Your task to perform on an android device: How much does a 3 bedroom apartment rent for in Boston? Image 0: 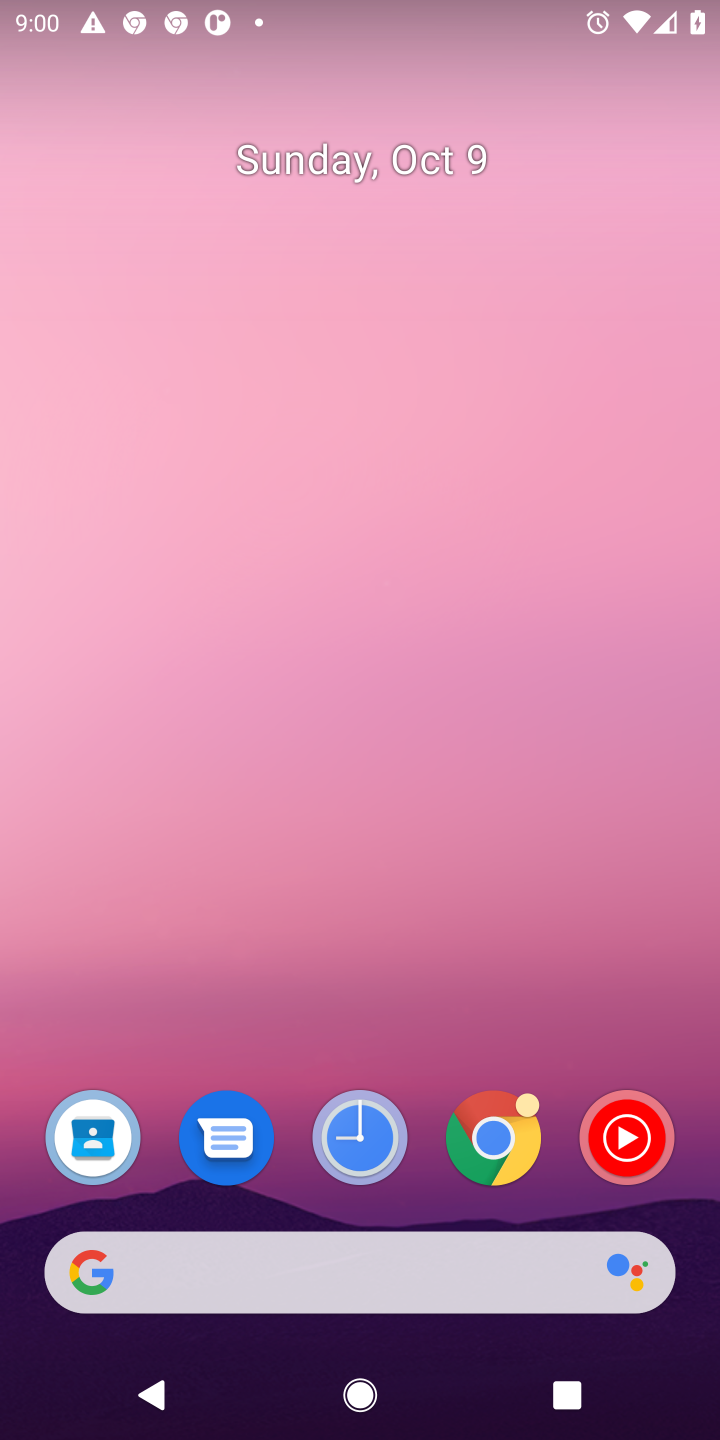
Step 0: drag from (346, 1126) to (435, 382)
Your task to perform on an android device: How much does a 3 bedroom apartment rent for in Boston? Image 1: 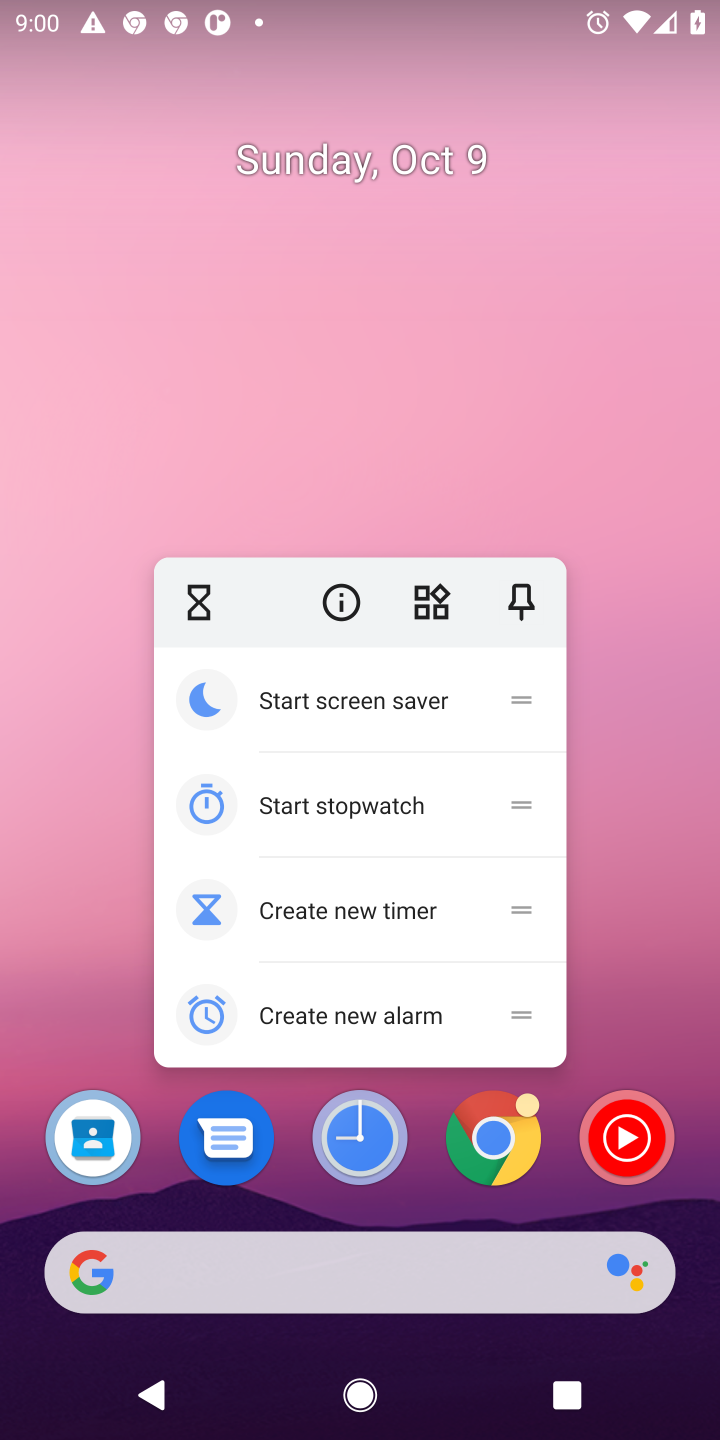
Step 1: click (69, 904)
Your task to perform on an android device: How much does a 3 bedroom apartment rent for in Boston? Image 2: 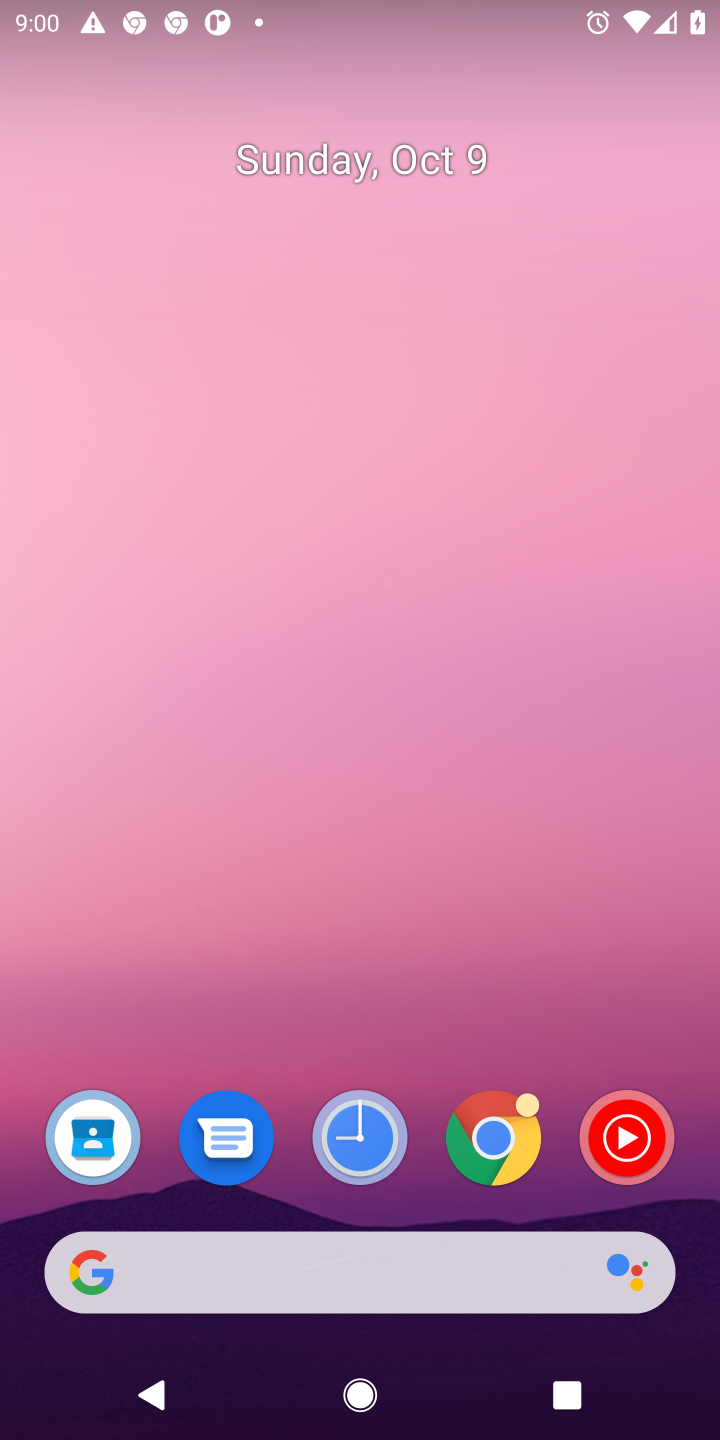
Step 2: drag from (205, 1211) to (240, 417)
Your task to perform on an android device: How much does a 3 bedroom apartment rent for in Boston? Image 3: 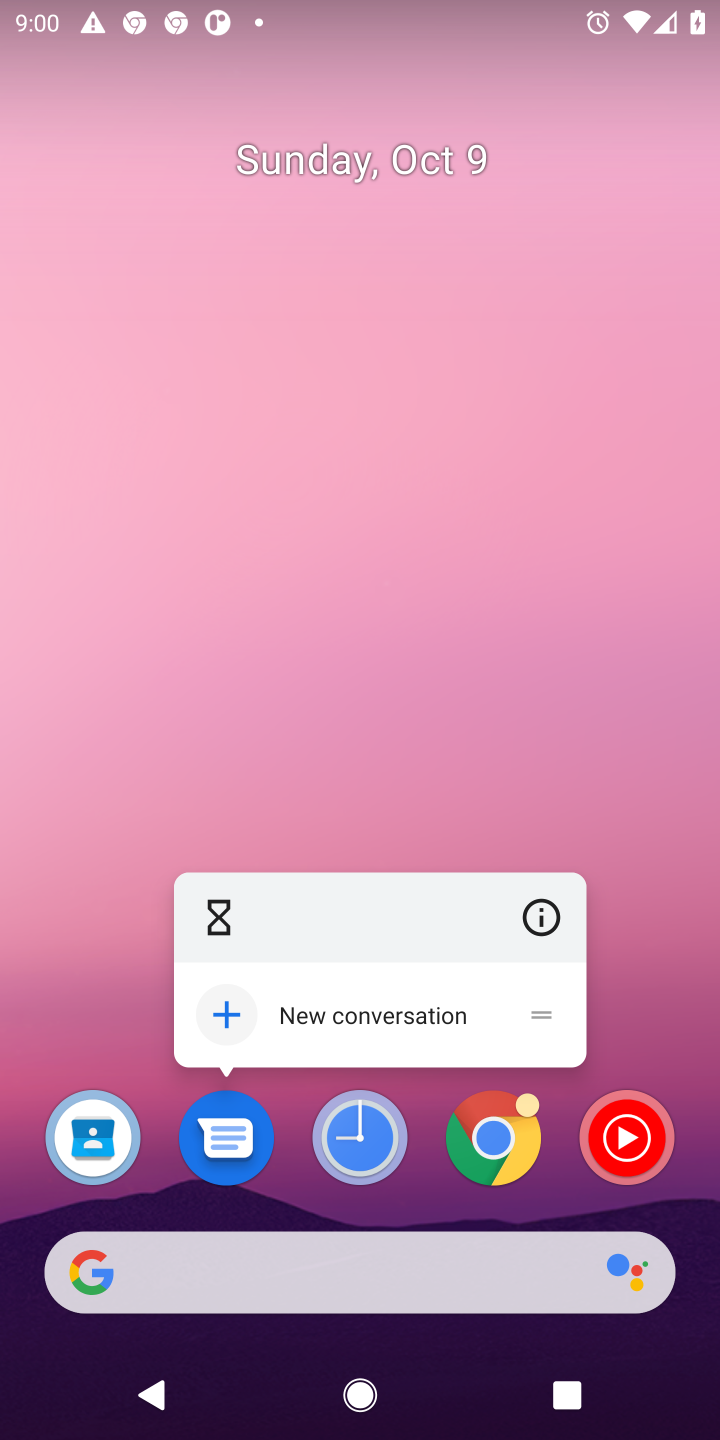
Step 3: click (518, 579)
Your task to perform on an android device: How much does a 3 bedroom apartment rent for in Boston? Image 4: 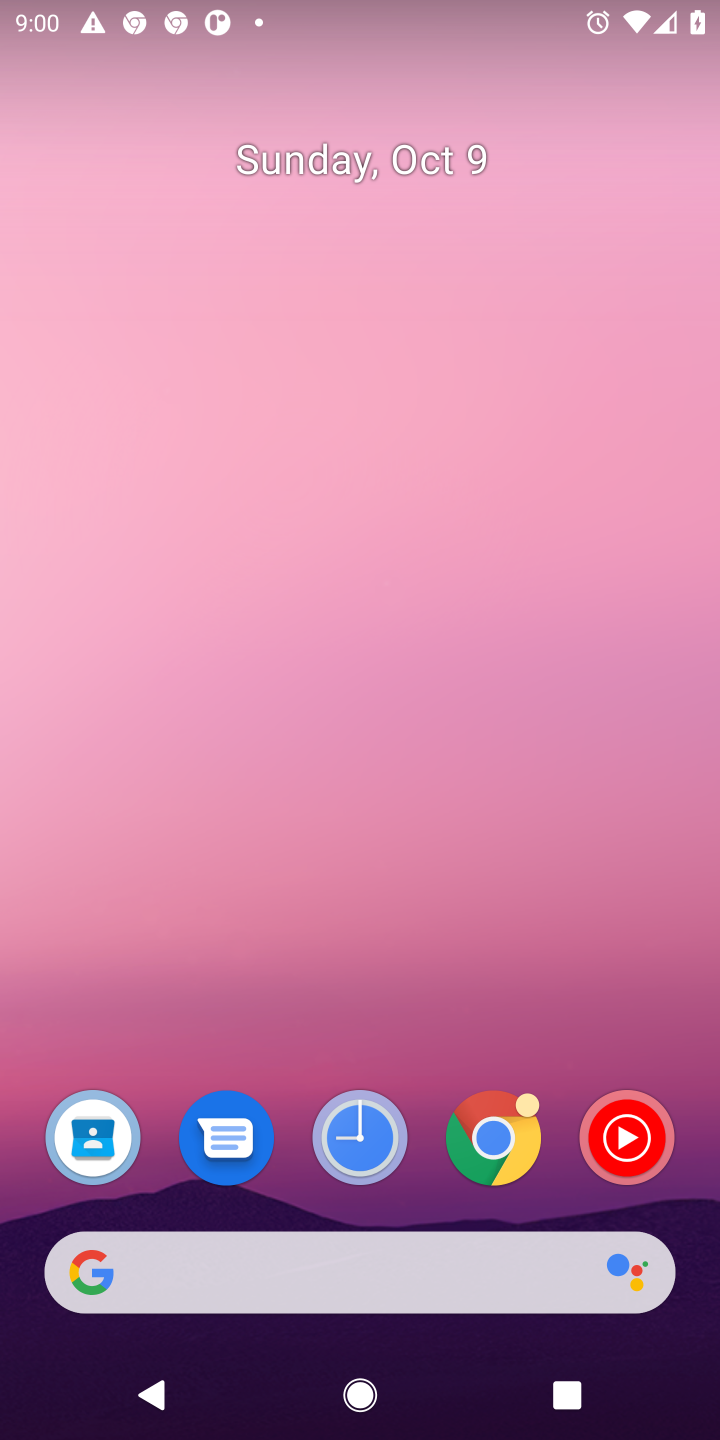
Step 4: drag from (393, 802) to (472, 302)
Your task to perform on an android device: How much does a 3 bedroom apartment rent for in Boston? Image 5: 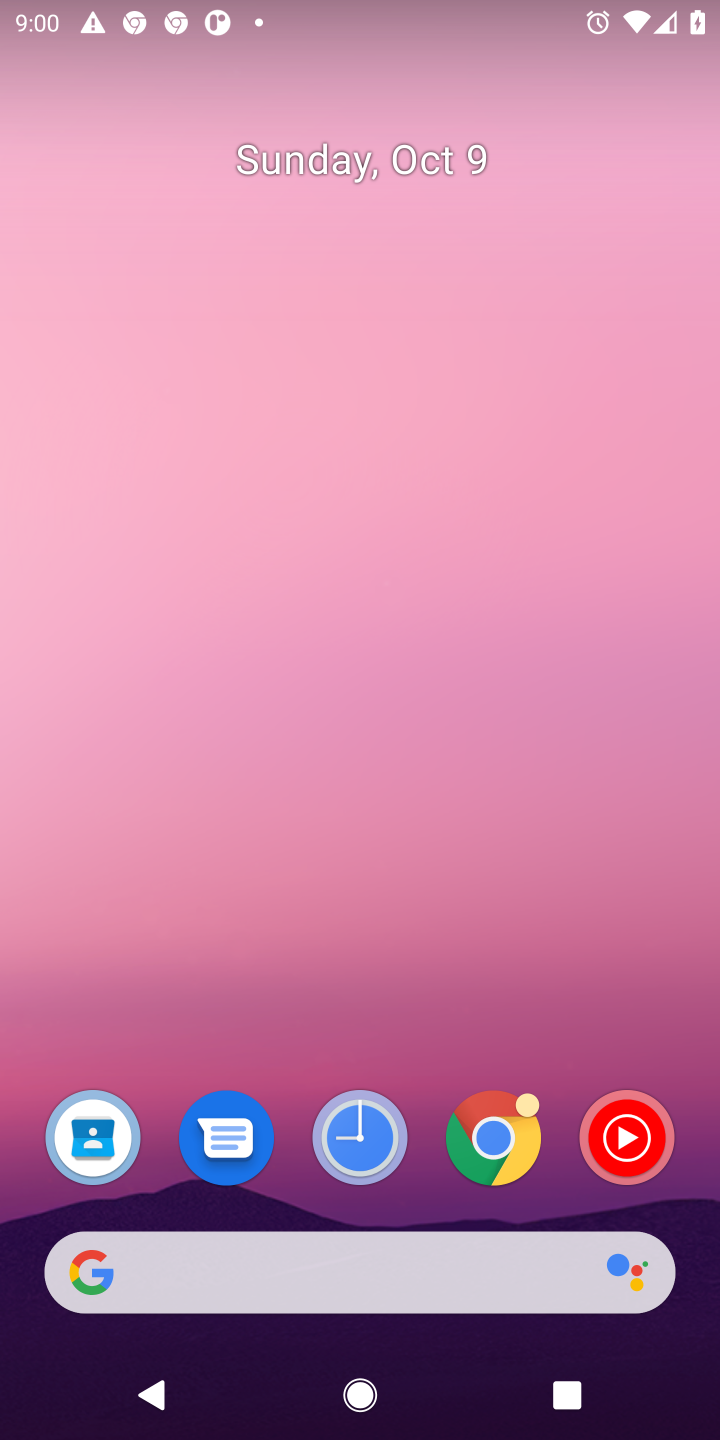
Step 5: drag from (361, 734) to (387, 395)
Your task to perform on an android device: How much does a 3 bedroom apartment rent for in Boston? Image 6: 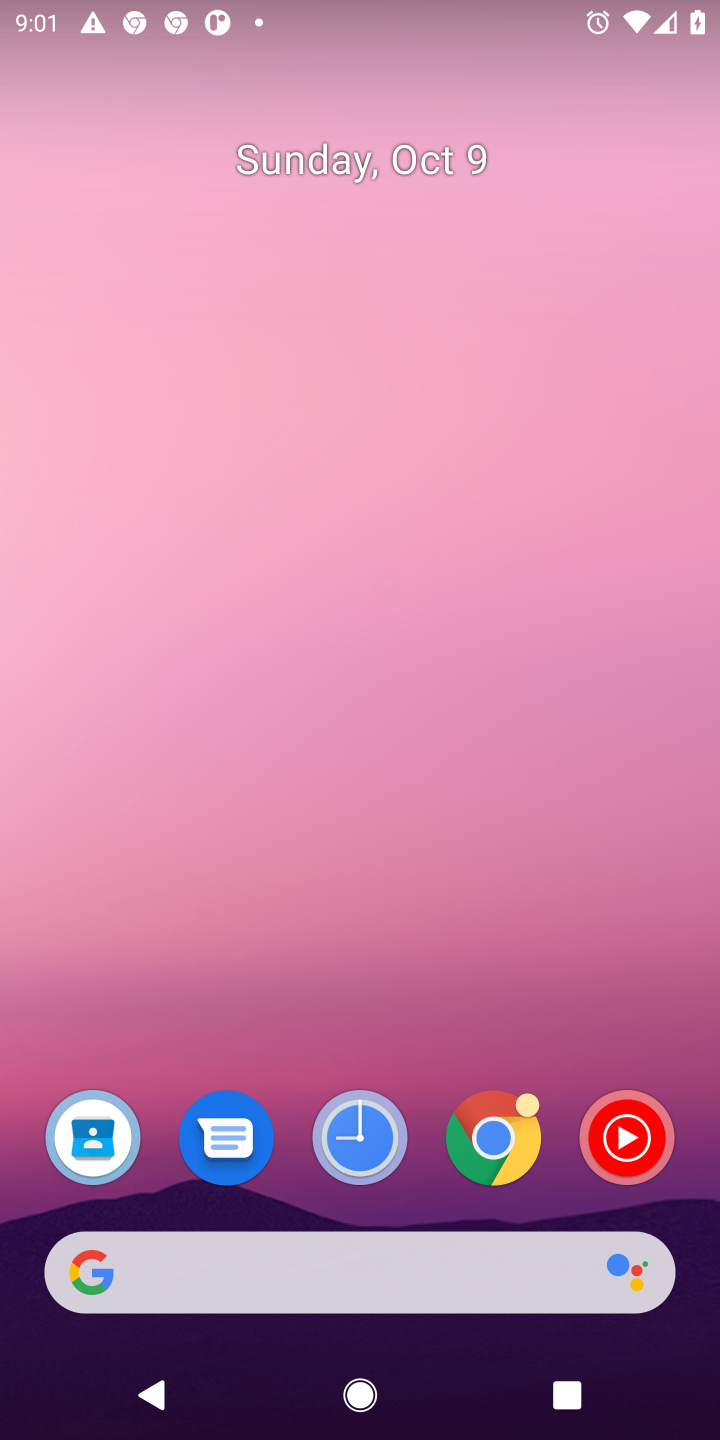
Step 6: drag from (402, 1241) to (403, 160)
Your task to perform on an android device: How much does a 3 bedroom apartment rent for in Boston? Image 7: 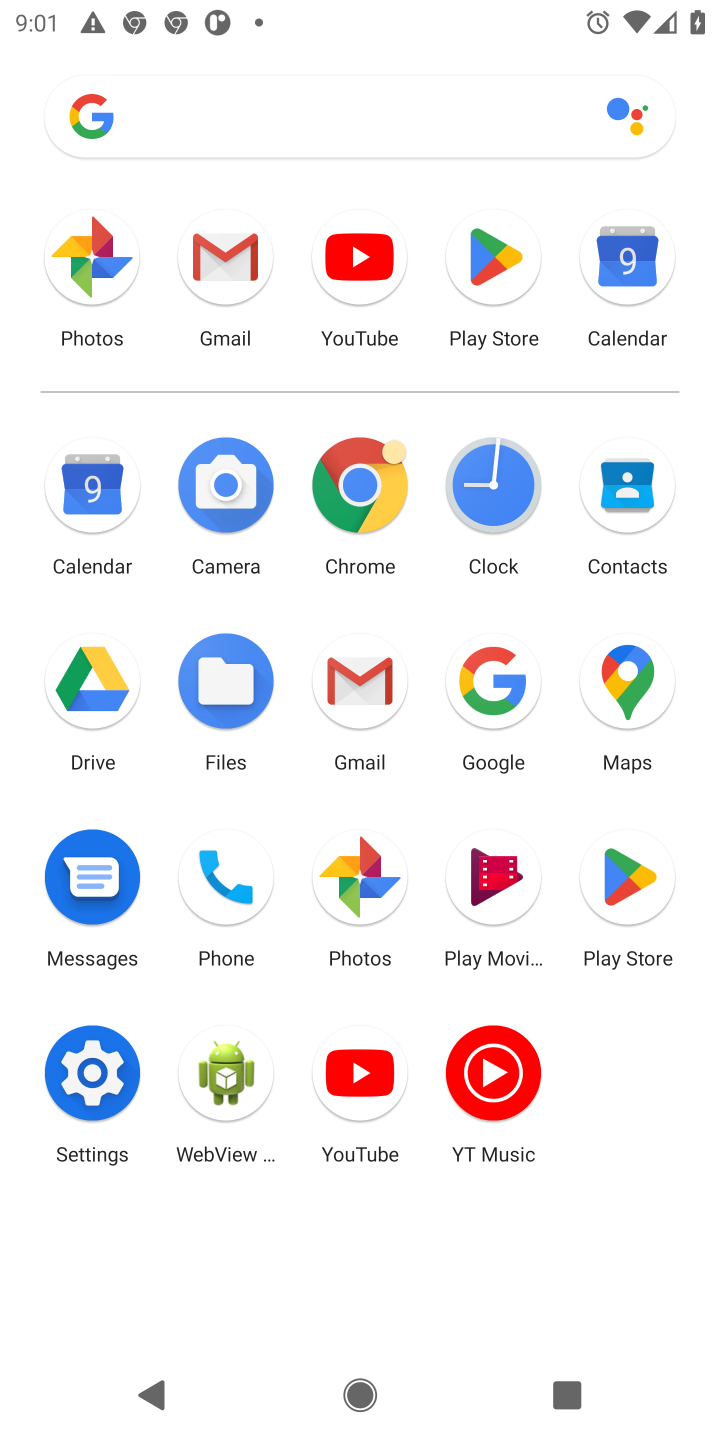
Step 7: click (478, 675)
Your task to perform on an android device: How much does a 3 bedroom apartment rent for in Boston? Image 8: 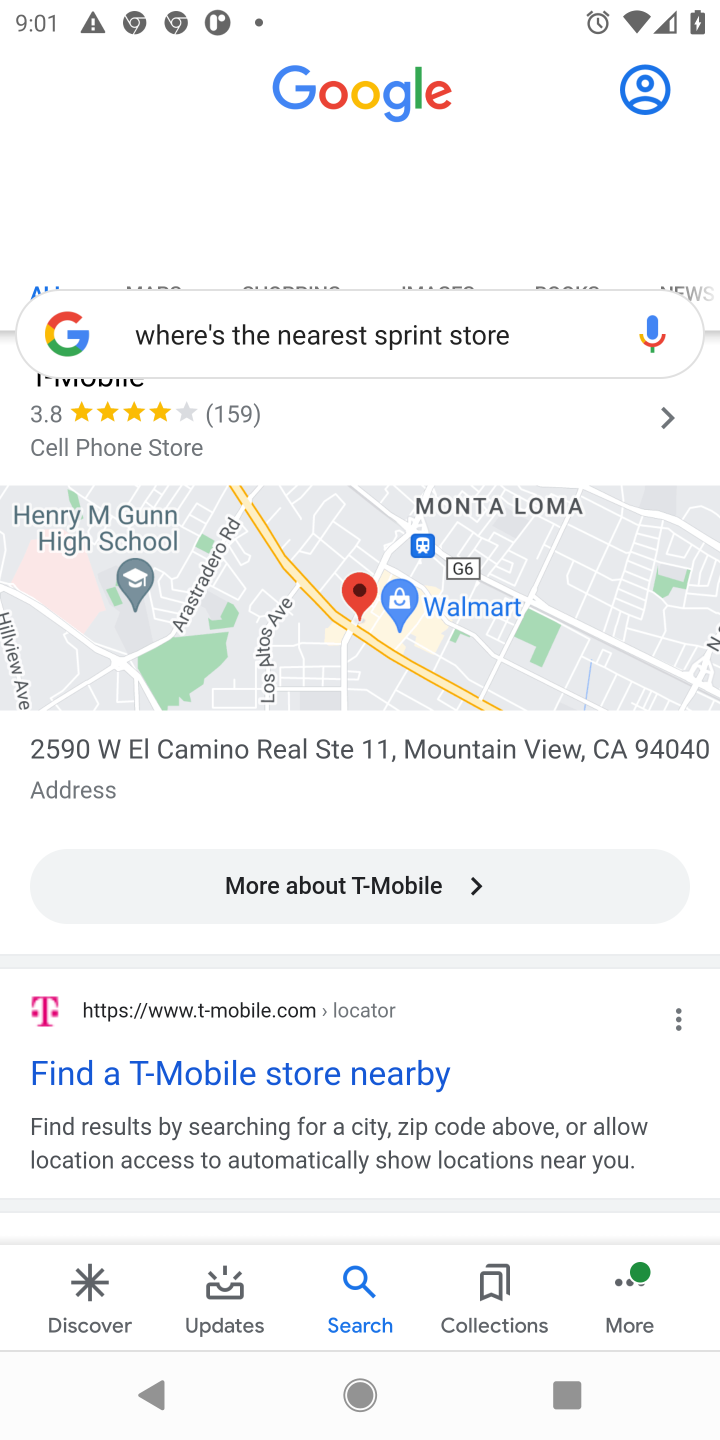
Step 8: click (501, 327)
Your task to perform on an android device: How much does a 3 bedroom apartment rent for in Boston? Image 9: 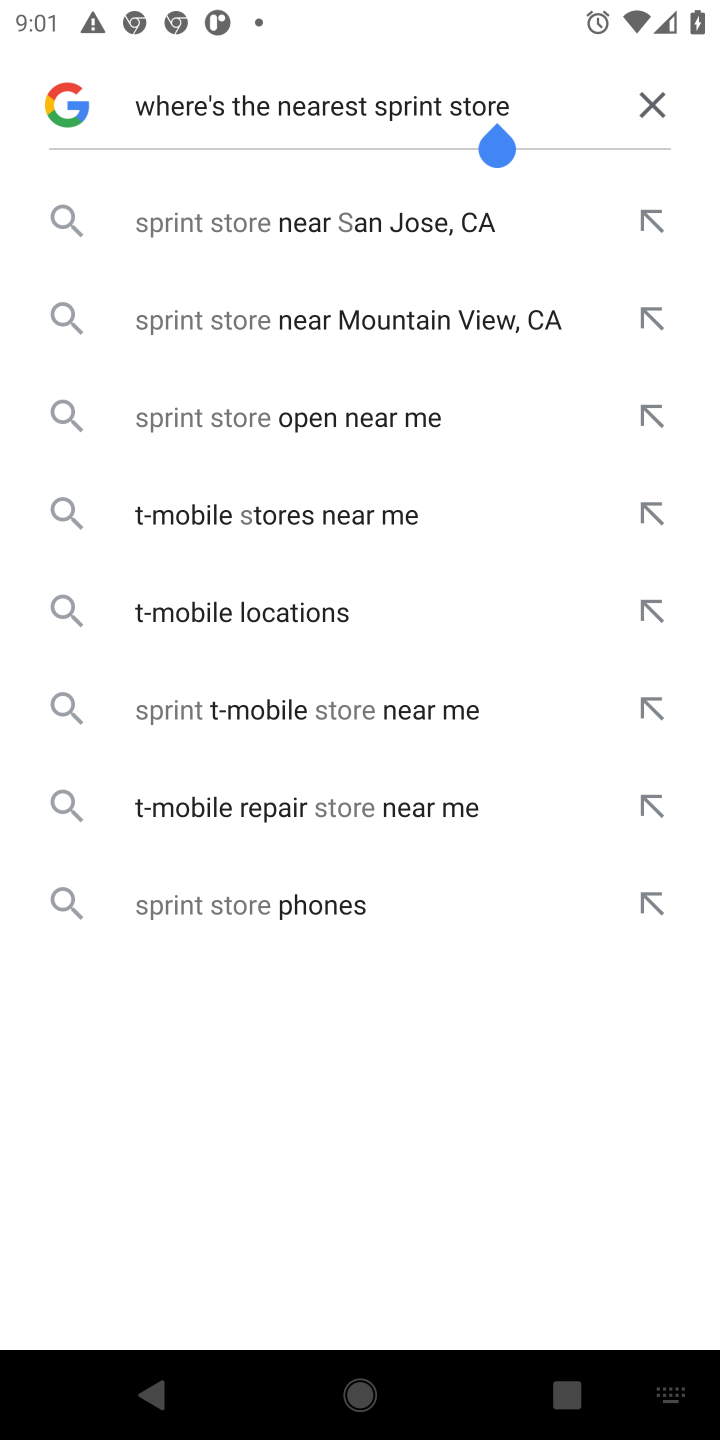
Step 9: click (647, 100)
Your task to perform on an android device: How much does a 3 bedroom apartment rent for in Boston? Image 10: 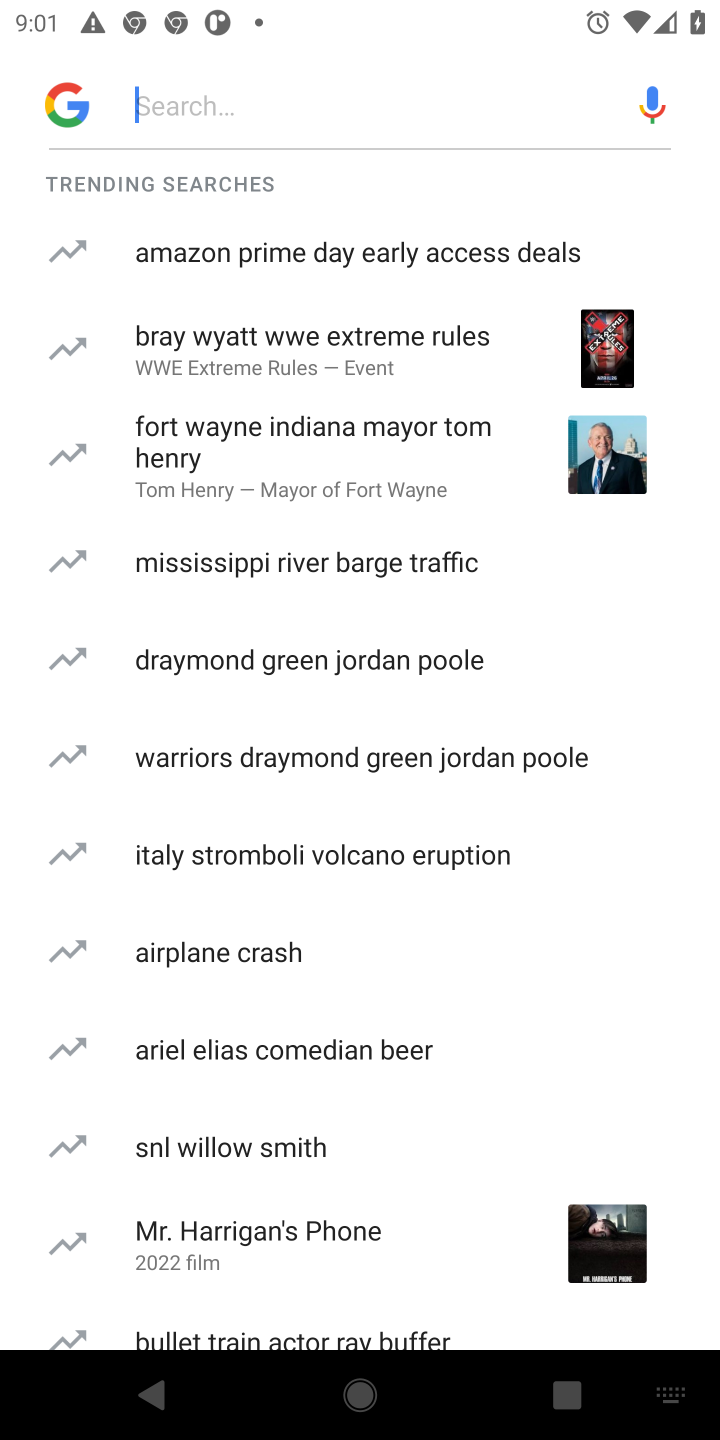
Step 10: click (350, 109)
Your task to perform on an android device: How much does a 3 bedroom apartment rent for in Boston? Image 11: 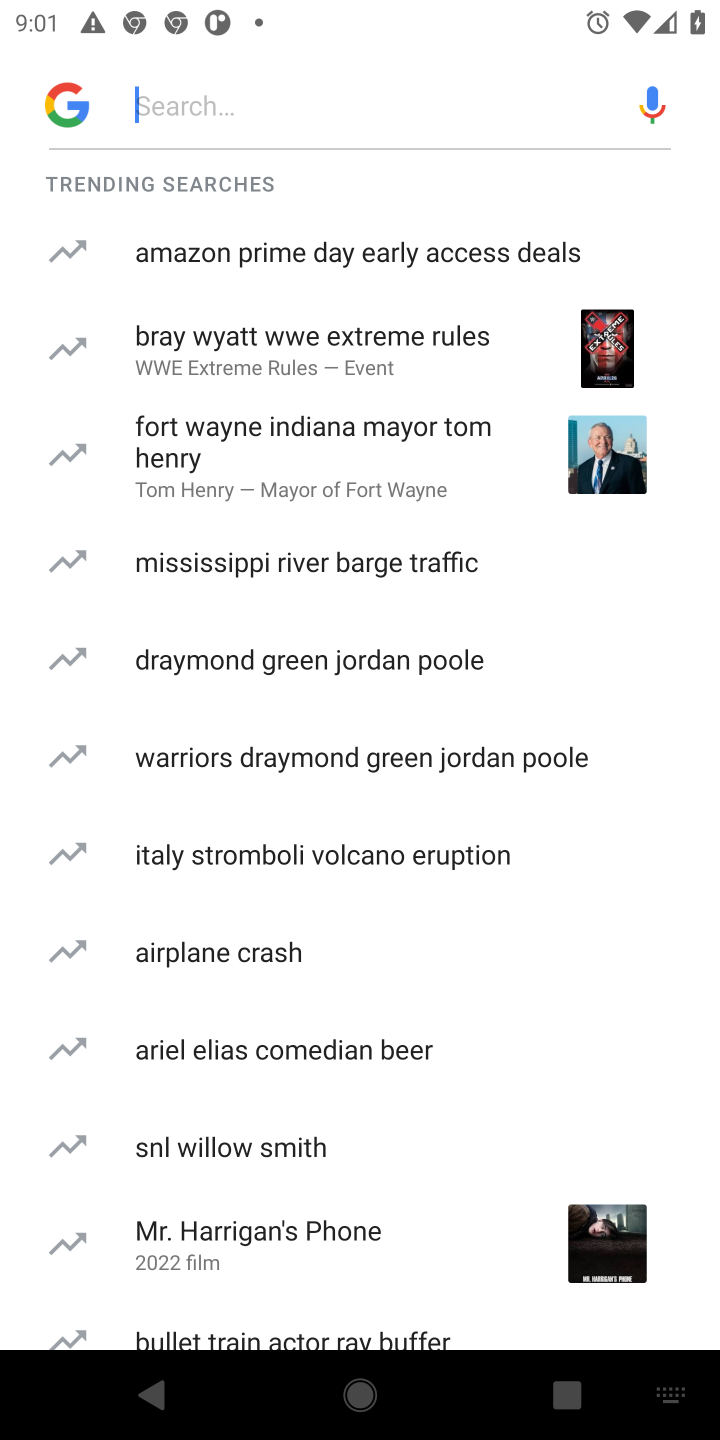
Step 11: type "How much does a 3 bedroom apartment rent for in Boston? "
Your task to perform on an android device: How much does a 3 bedroom apartment rent for in Boston? Image 12: 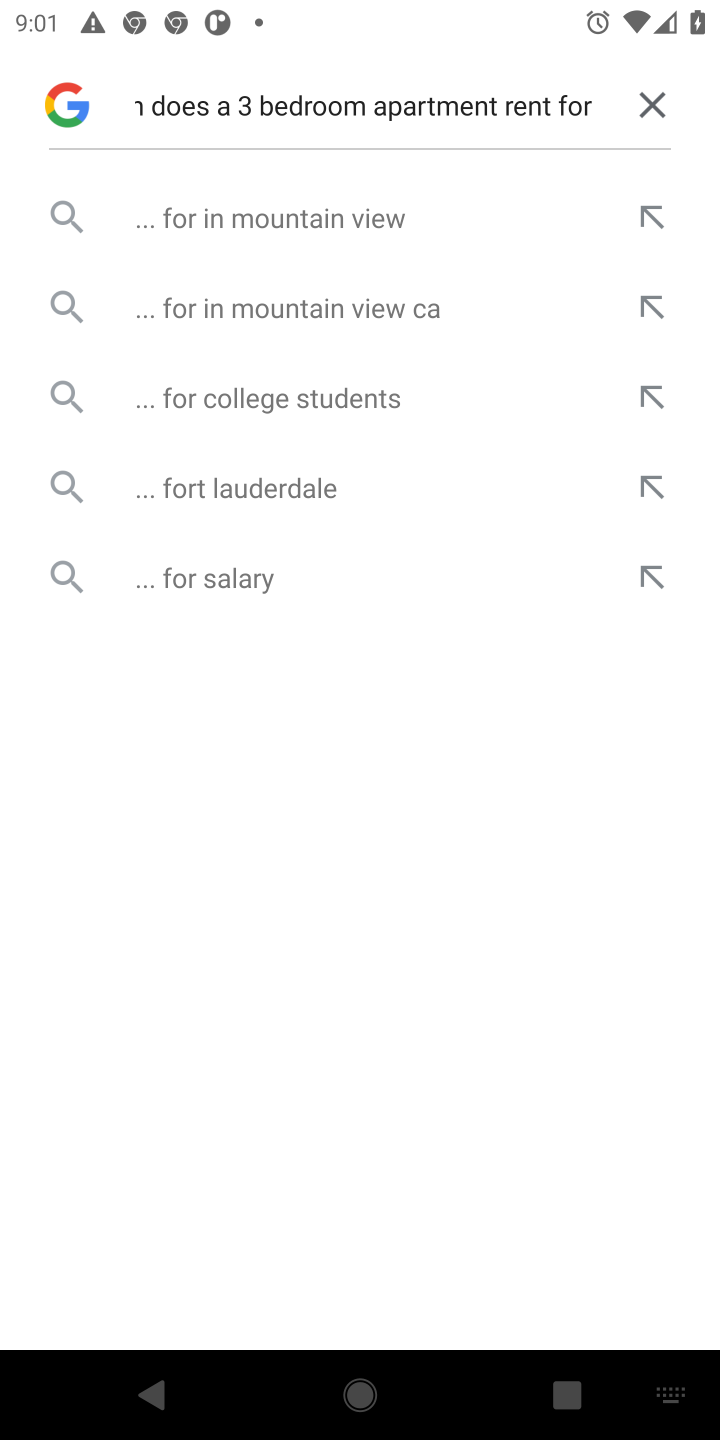
Step 12: click (235, 334)
Your task to perform on an android device: How much does a 3 bedroom apartment rent for in Boston? Image 13: 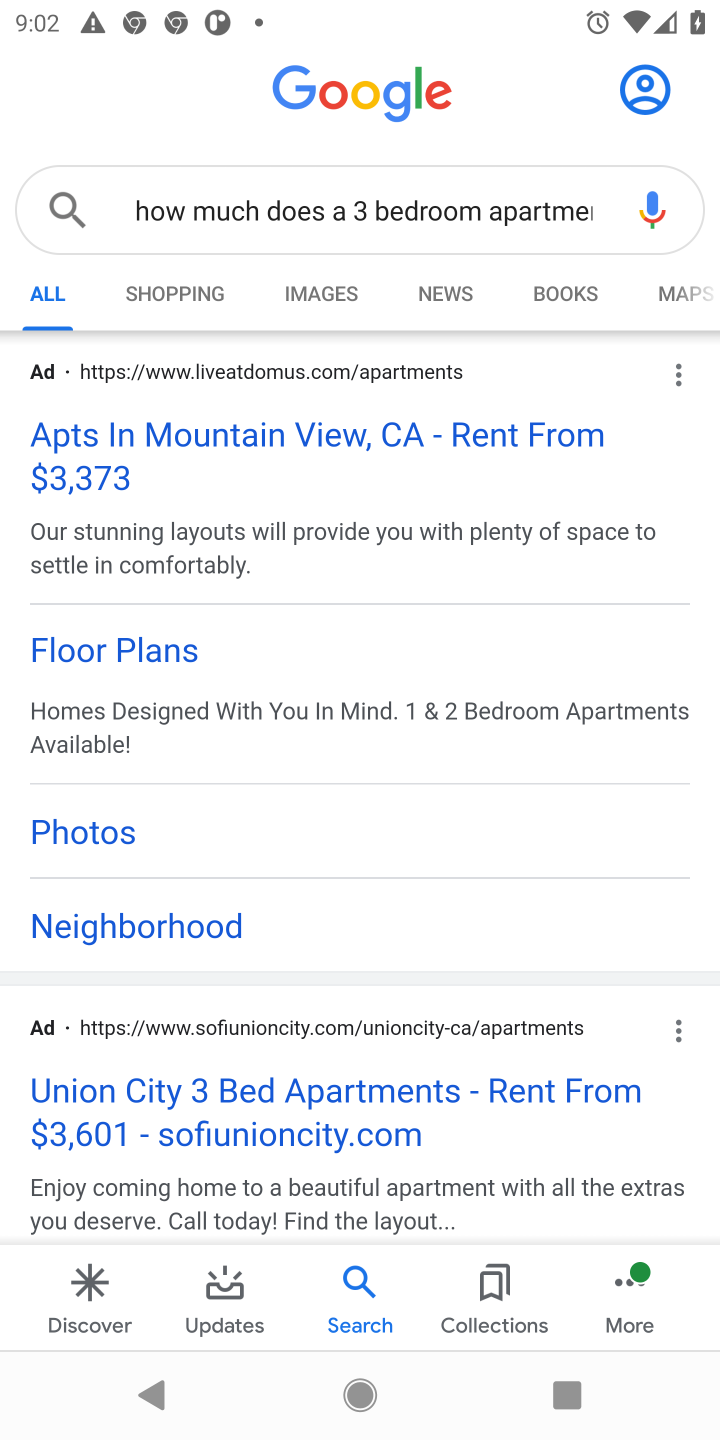
Step 13: click (292, 1068)
Your task to perform on an android device: How much does a 3 bedroom apartment rent for in Boston? Image 14: 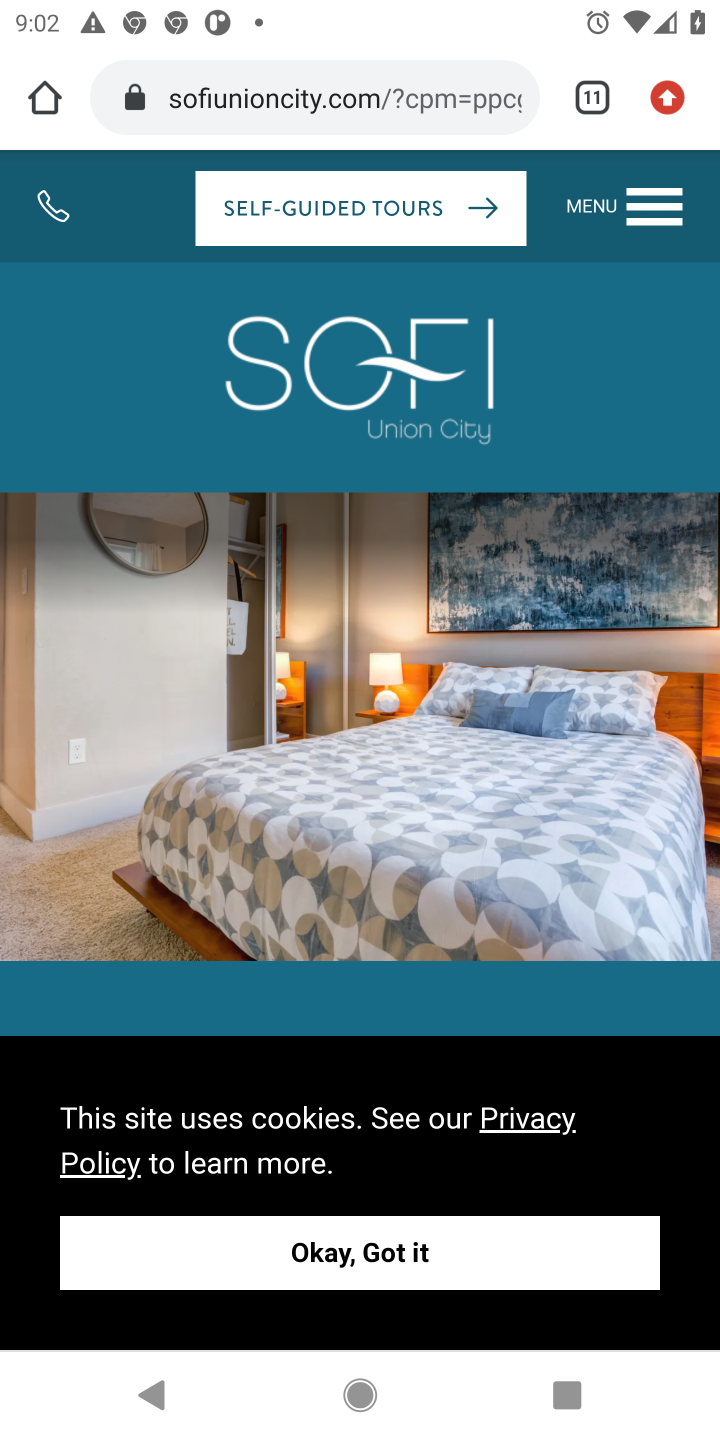
Step 14: drag from (370, 1158) to (455, 184)
Your task to perform on an android device: How much does a 3 bedroom apartment rent for in Boston? Image 15: 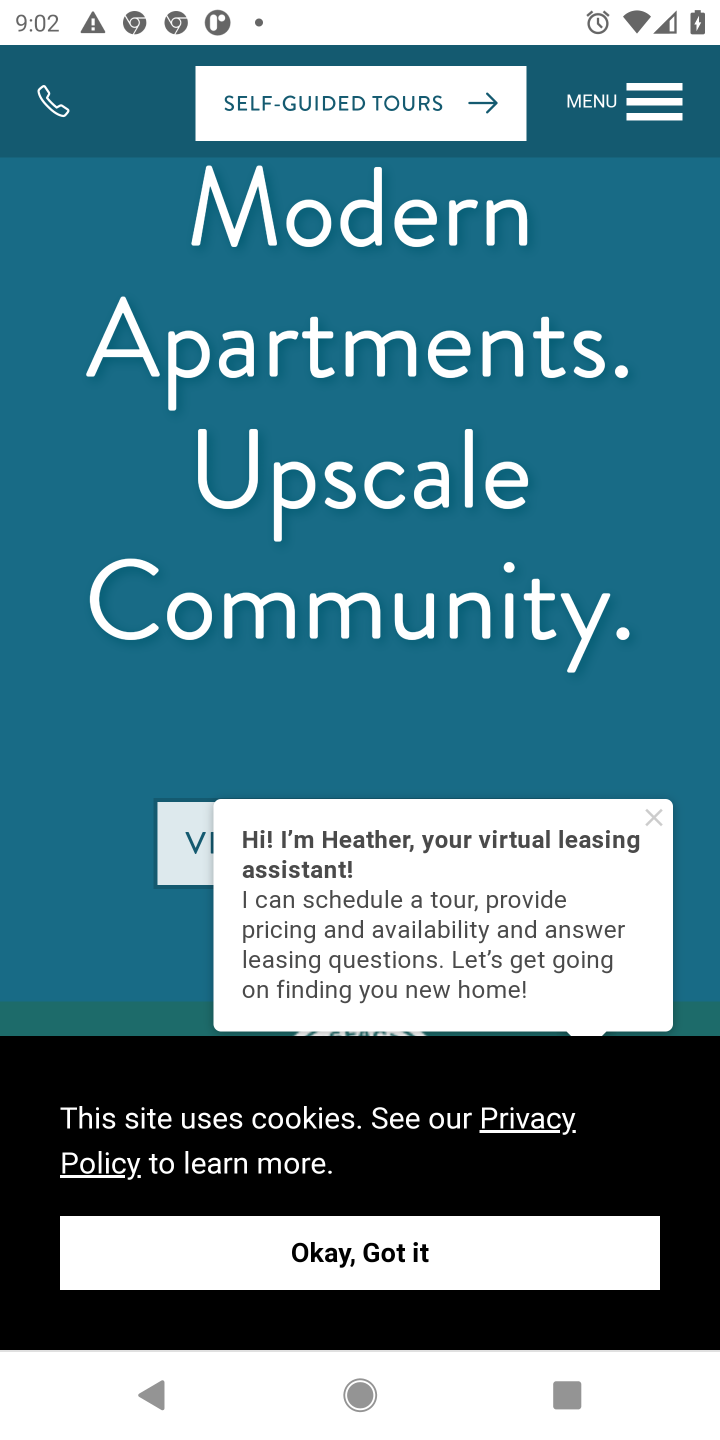
Step 15: click (405, 1244)
Your task to perform on an android device: How much does a 3 bedroom apartment rent for in Boston? Image 16: 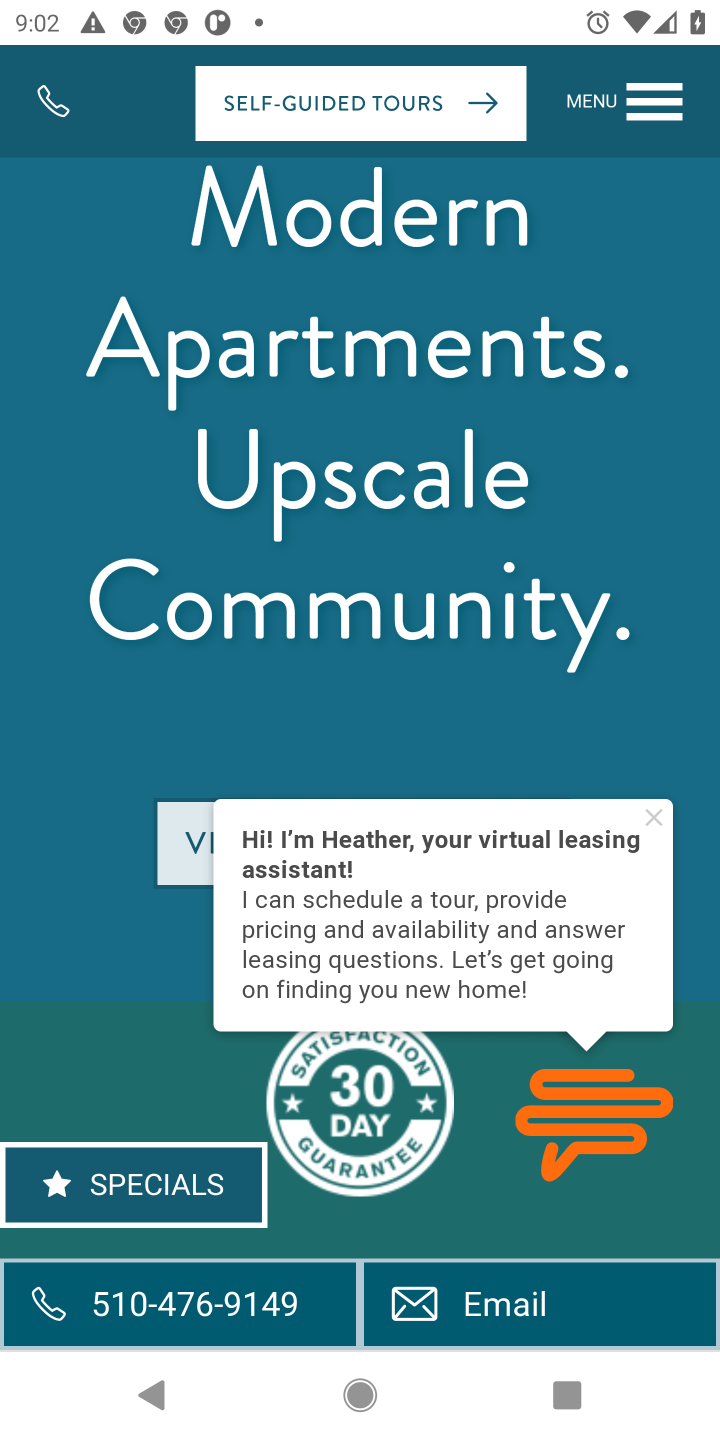
Step 16: task complete